Your task to perform on an android device: open the mobile data screen to see how much data has been used Image 0: 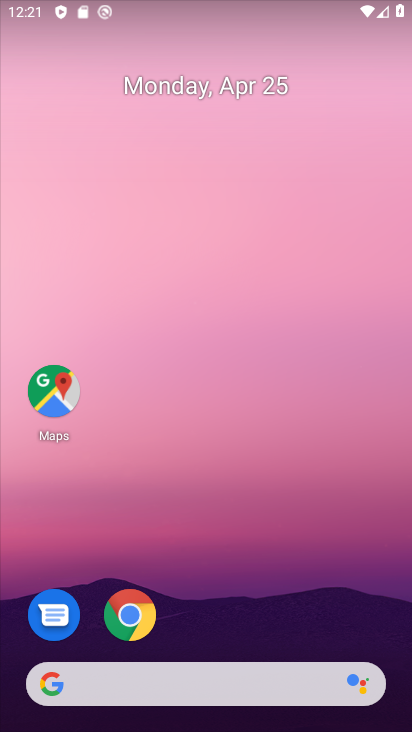
Step 0: drag from (187, 661) to (180, 7)
Your task to perform on an android device: open the mobile data screen to see how much data has been used Image 1: 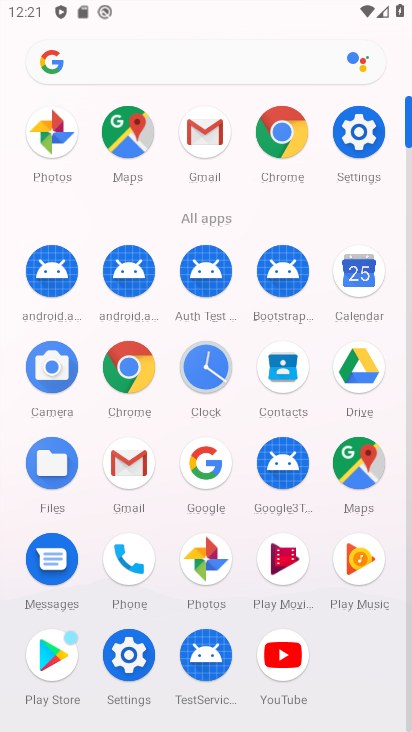
Step 1: click (357, 135)
Your task to perform on an android device: open the mobile data screen to see how much data has been used Image 2: 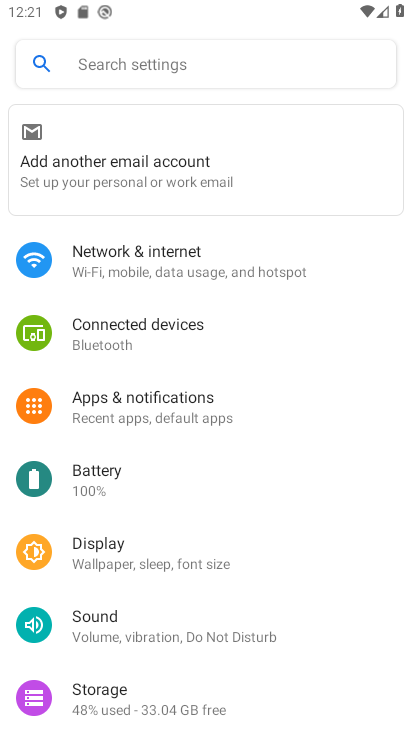
Step 2: drag from (231, 551) to (170, 134)
Your task to perform on an android device: open the mobile data screen to see how much data has been used Image 3: 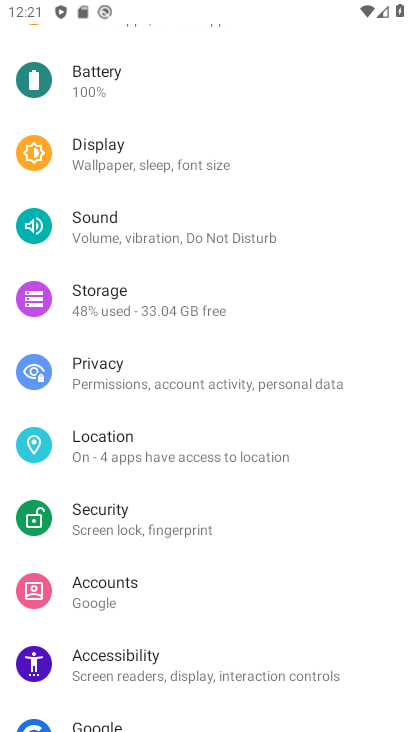
Step 3: drag from (169, 135) to (147, 497)
Your task to perform on an android device: open the mobile data screen to see how much data has been used Image 4: 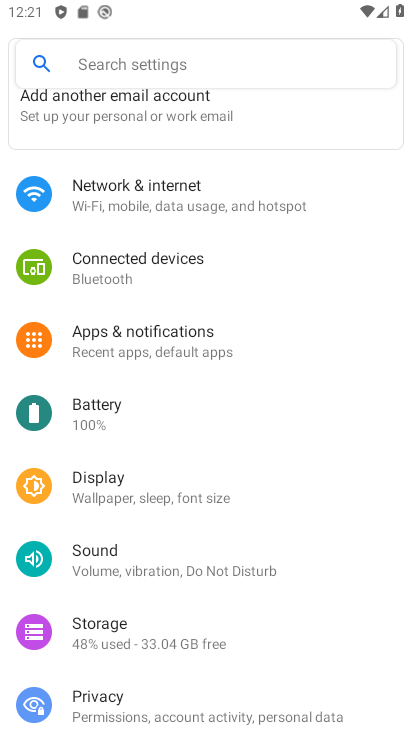
Step 4: click (119, 204)
Your task to perform on an android device: open the mobile data screen to see how much data has been used Image 5: 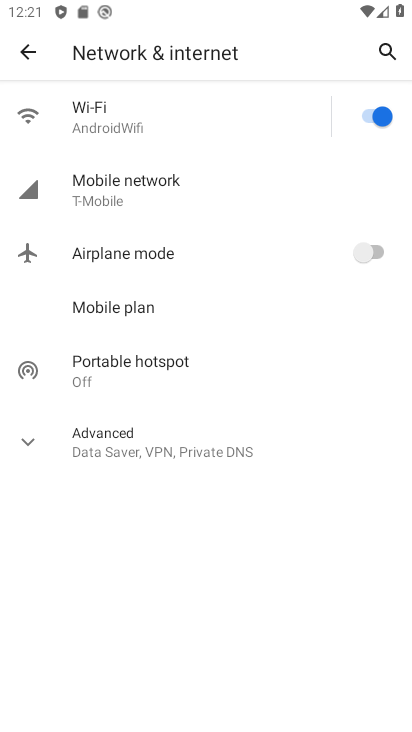
Step 5: click (130, 185)
Your task to perform on an android device: open the mobile data screen to see how much data has been used Image 6: 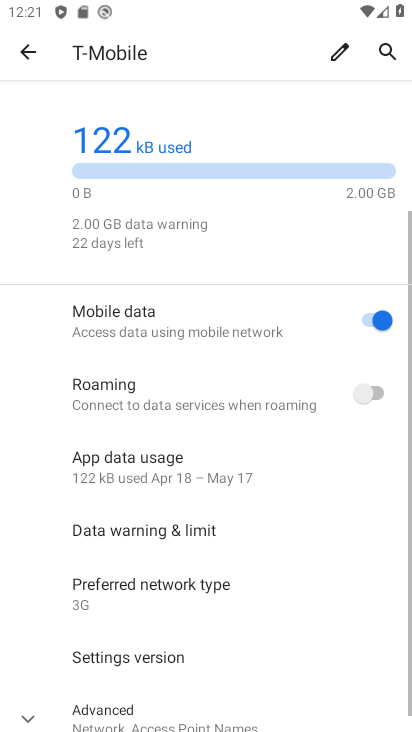
Step 6: task complete